Your task to perform on an android device: Search for seafood restaurants on Google Maps Image 0: 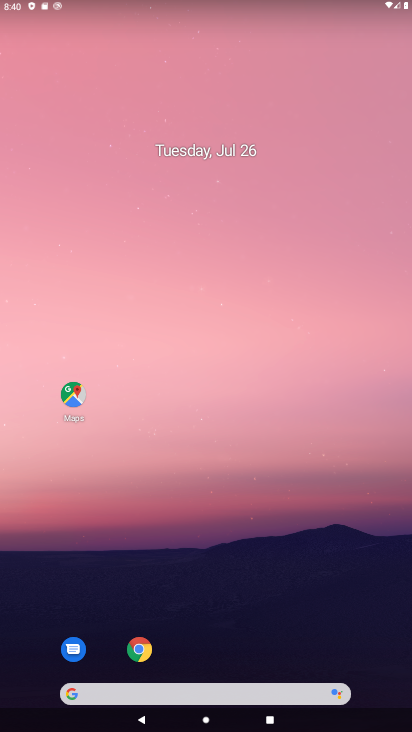
Step 0: drag from (188, 654) to (167, 234)
Your task to perform on an android device: Search for seafood restaurants on Google Maps Image 1: 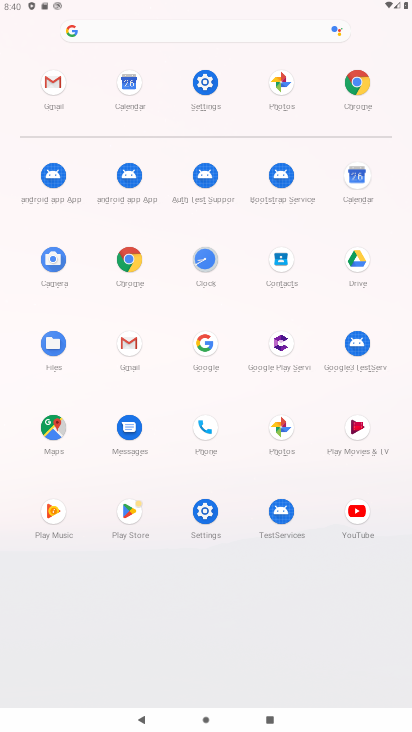
Step 1: click (61, 432)
Your task to perform on an android device: Search for seafood restaurants on Google Maps Image 2: 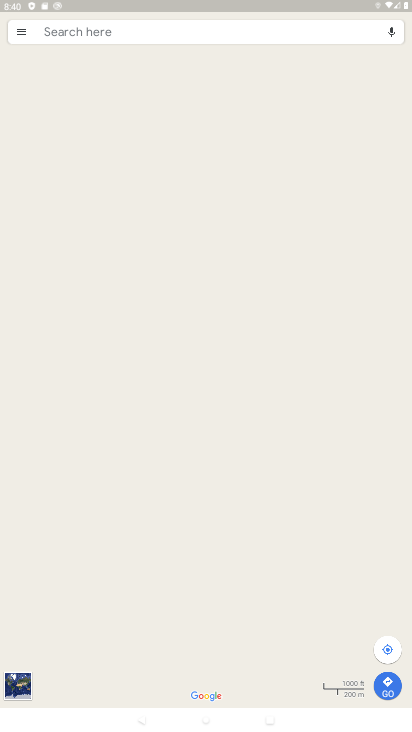
Step 2: click (77, 32)
Your task to perform on an android device: Search for seafood restaurants on Google Maps Image 3: 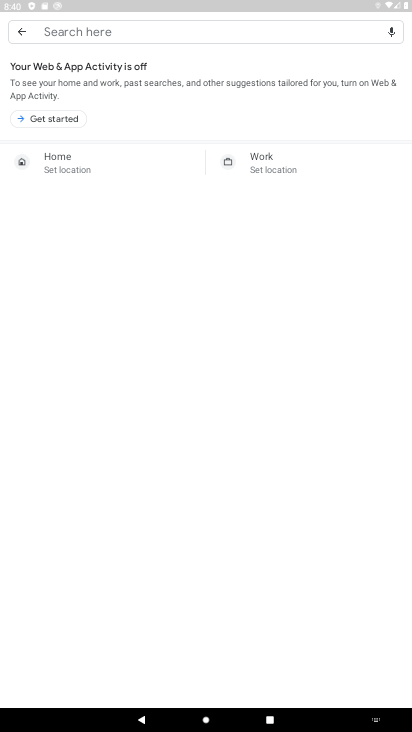
Step 3: click (130, 26)
Your task to perform on an android device: Search for seafood restaurants on Google Maps Image 4: 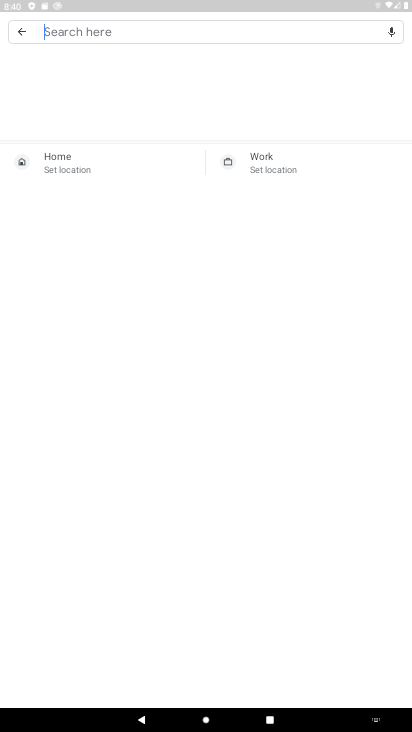
Step 4: click (101, 24)
Your task to perform on an android device: Search for seafood restaurants on Google Maps Image 5: 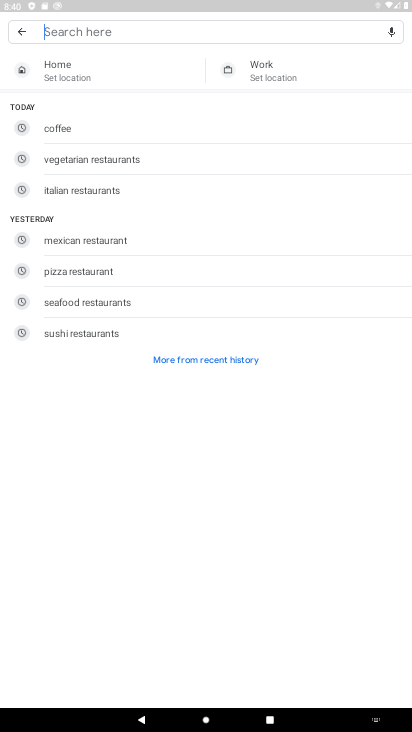
Step 5: click (84, 303)
Your task to perform on an android device: Search for seafood restaurants on Google Maps Image 6: 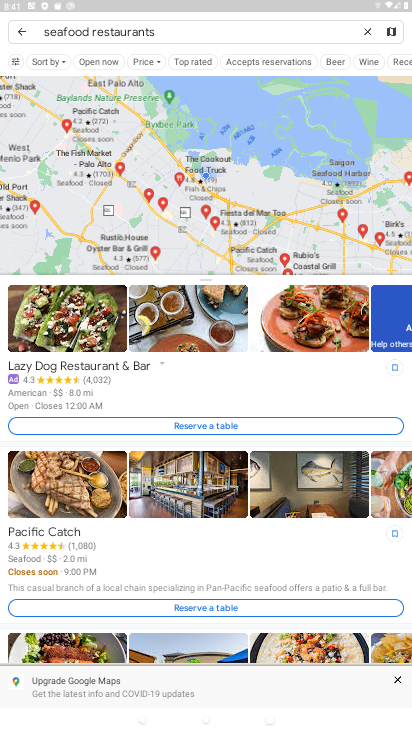
Step 6: task complete